Your task to perform on an android device: Open notification settings Image 0: 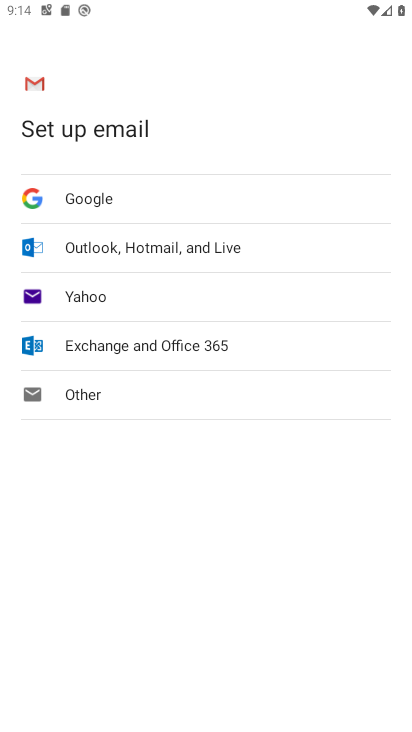
Step 0: press home button
Your task to perform on an android device: Open notification settings Image 1: 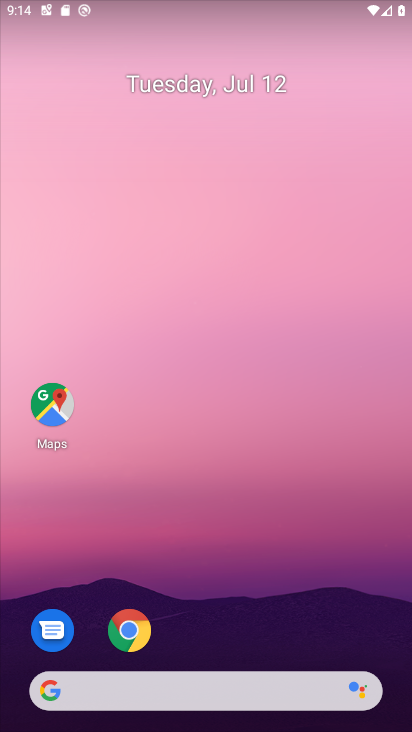
Step 1: drag from (150, 662) to (227, 167)
Your task to perform on an android device: Open notification settings Image 2: 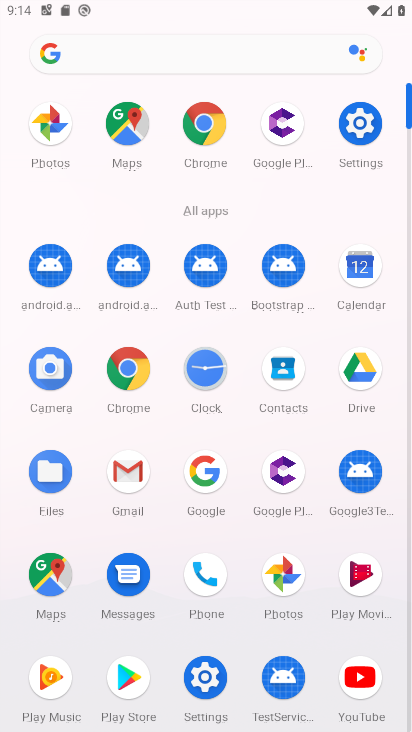
Step 2: click (206, 675)
Your task to perform on an android device: Open notification settings Image 3: 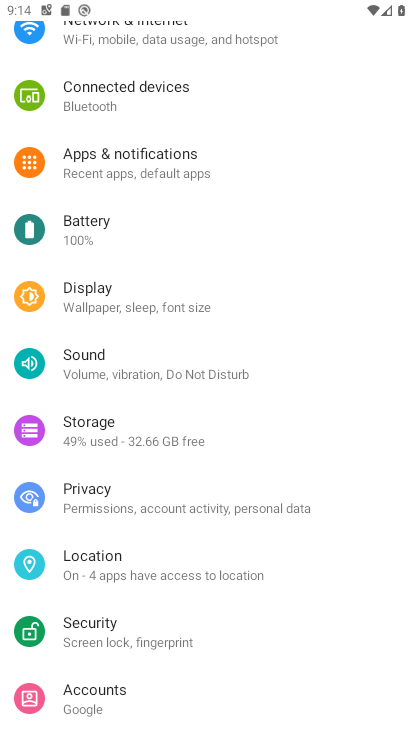
Step 3: click (198, 177)
Your task to perform on an android device: Open notification settings Image 4: 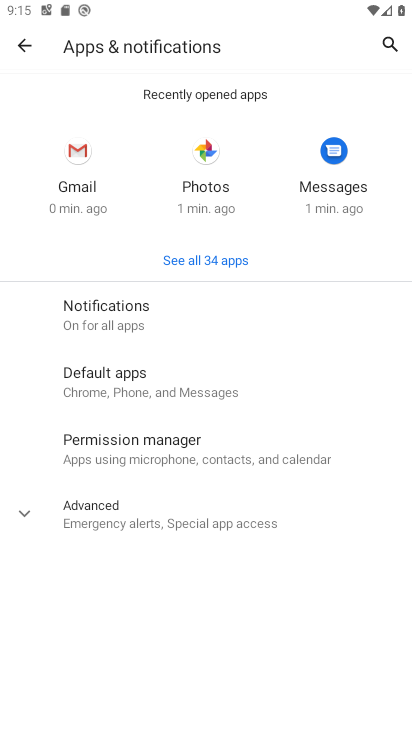
Step 4: click (137, 311)
Your task to perform on an android device: Open notification settings Image 5: 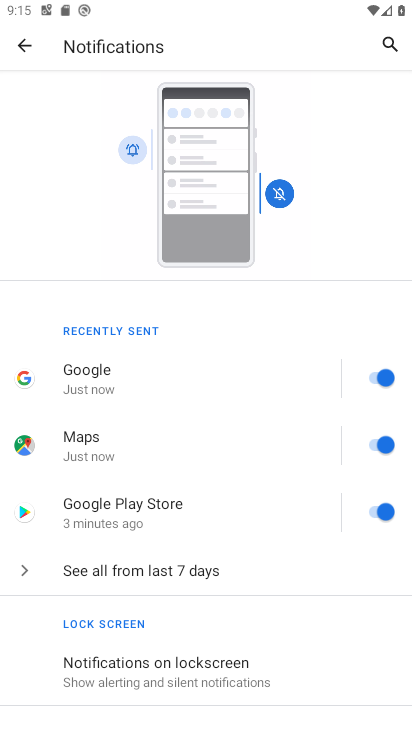
Step 5: task complete